Your task to perform on an android device: Is it going to rain this weekend? Image 0: 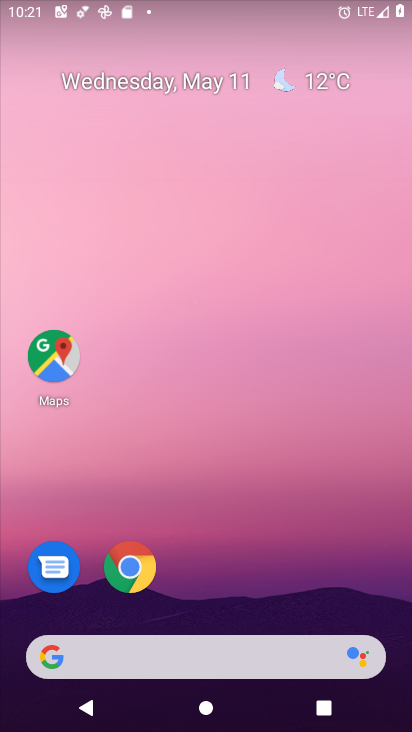
Step 0: click (319, 82)
Your task to perform on an android device: Is it going to rain this weekend? Image 1: 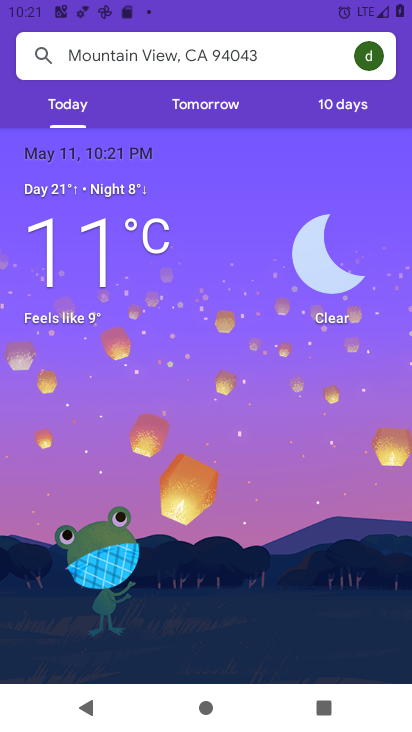
Step 1: click (357, 98)
Your task to perform on an android device: Is it going to rain this weekend? Image 2: 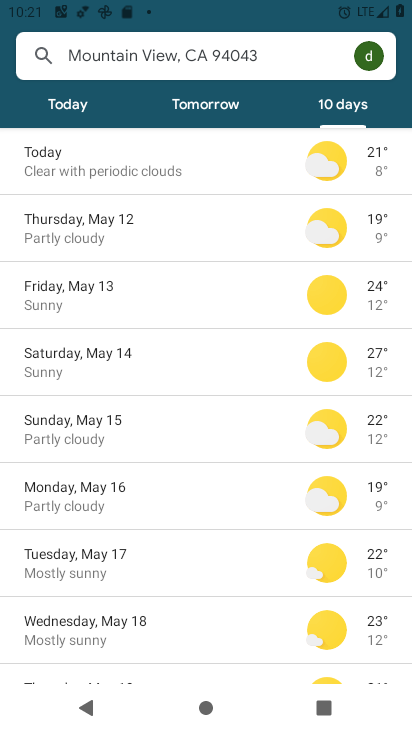
Step 2: task complete